Your task to perform on an android device: visit the assistant section in the google photos Image 0: 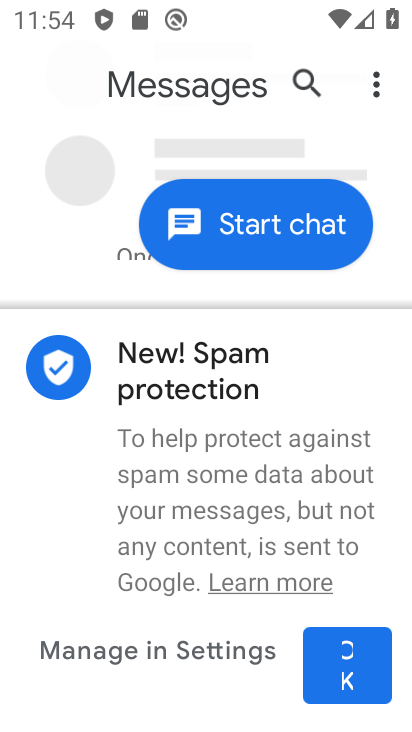
Step 0: drag from (219, 609) to (177, 302)
Your task to perform on an android device: visit the assistant section in the google photos Image 1: 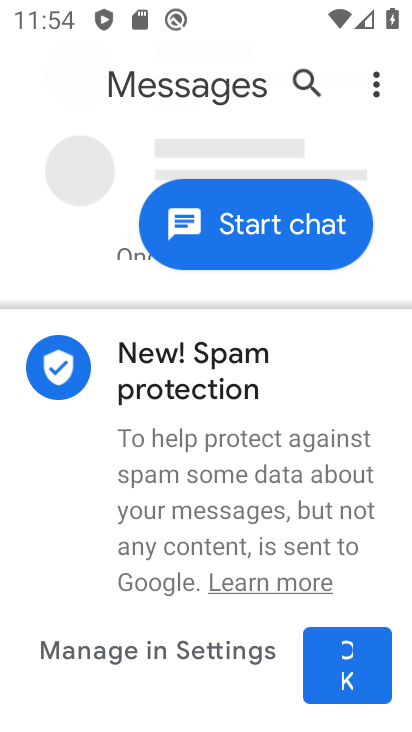
Step 1: press home button
Your task to perform on an android device: visit the assistant section in the google photos Image 2: 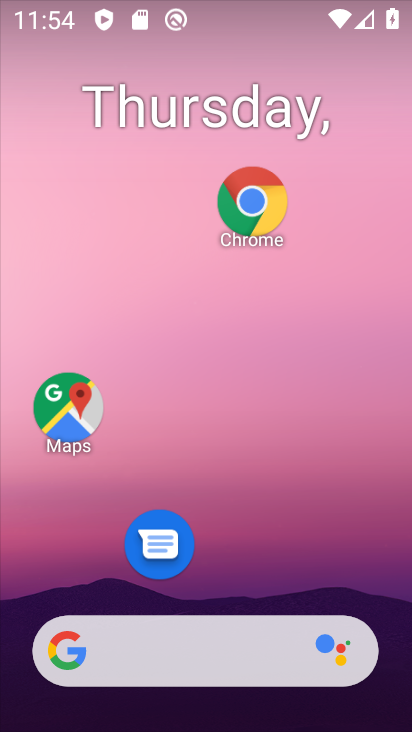
Step 2: drag from (216, 588) to (376, 4)
Your task to perform on an android device: visit the assistant section in the google photos Image 3: 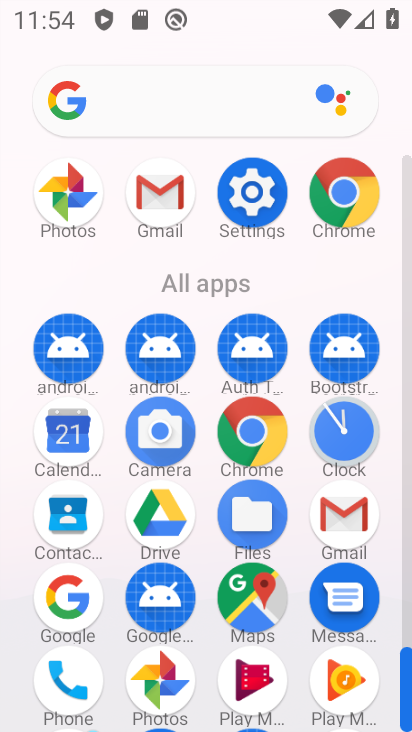
Step 3: click (163, 654)
Your task to perform on an android device: visit the assistant section in the google photos Image 4: 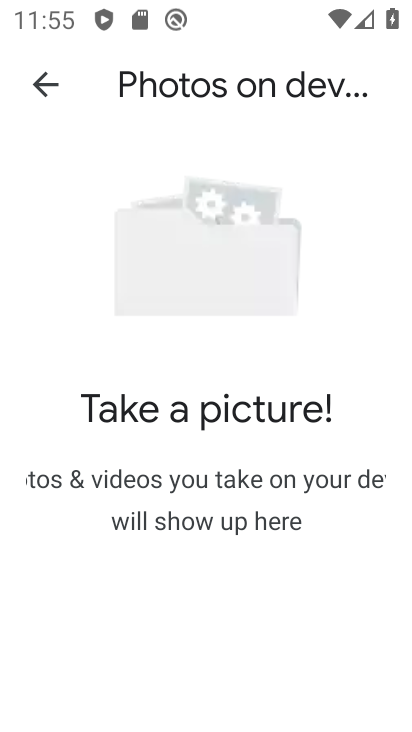
Step 4: click (29, 82)
Your task to perform on an android device: visit the assistant section in the google photos Image 5: 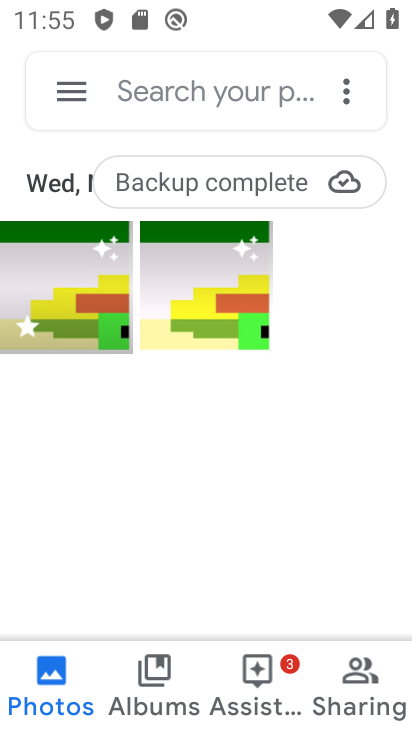
Step 5: click (251, 686)
Your task to perform on an android device: visit the assistant section in the google photos Image 6: 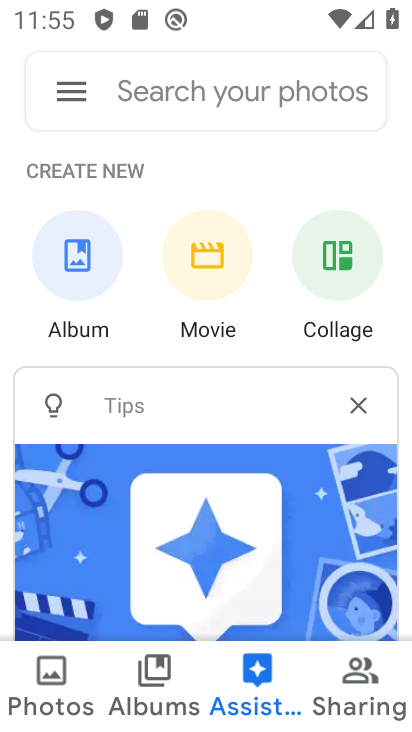
Step 6: task complete